Your task to perform on an android device: show emergency info Image 0: 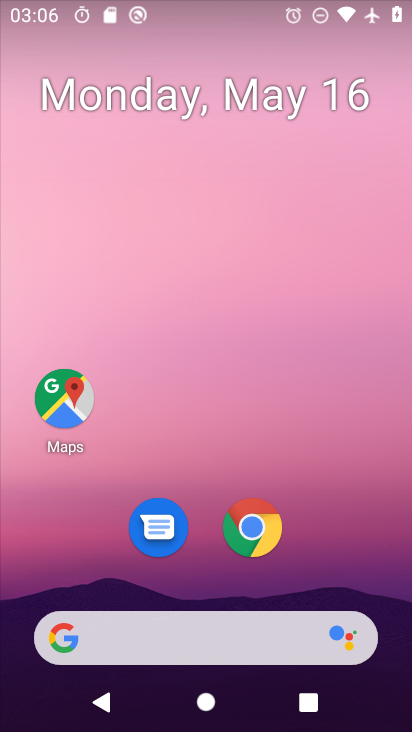
Step 0: drag from (204, 641) to (358, 60)
Your task to perform on an android device: show emergency info Image 1: 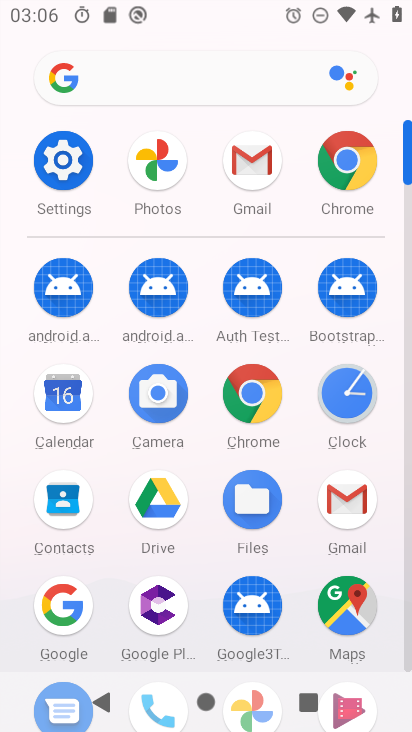
Step 1: click (61, 159)
Your task to perform on an android device: show emergency info Image 2: 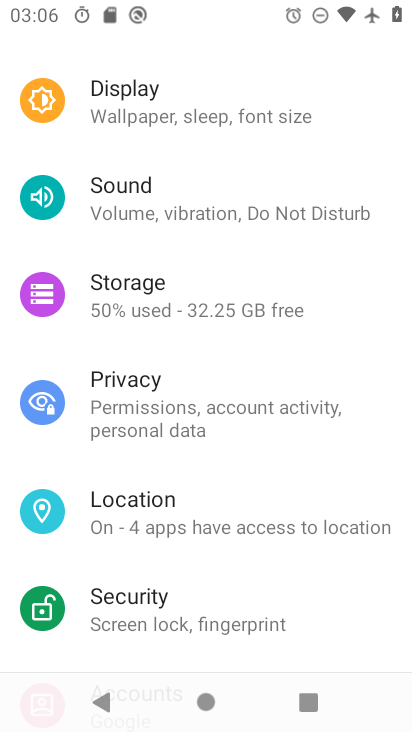
Step 2: drag from (199, 605) to (389, 39)
Your task to perform on an android device: show emergency info Image 3: 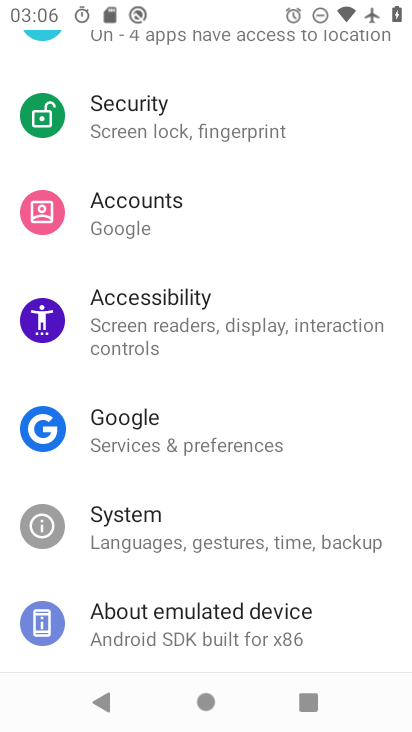
Step 3: click (160, 620)
Your task to perform on an android device: show emergency info Image 4: 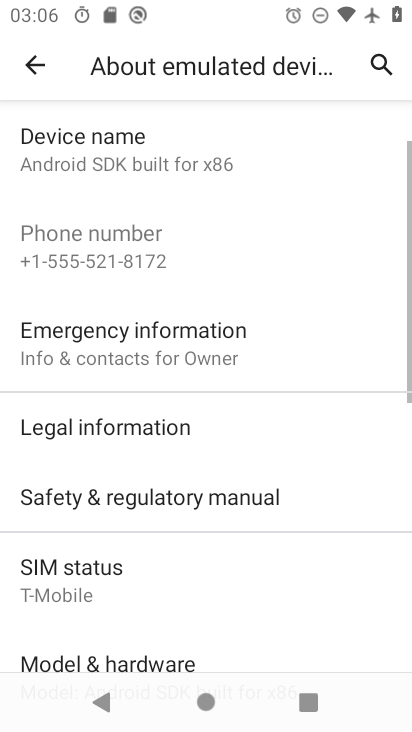
Step 4: click (166, 346)
Your task to perform on an android device: show emergency info Image 5: 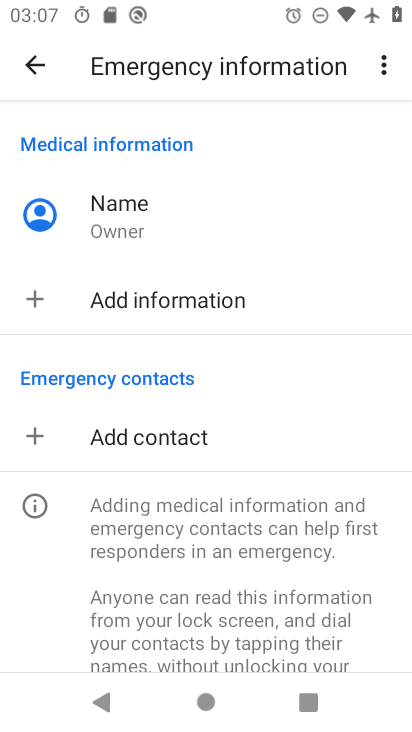
Step 5: task complete